Your task to perform on an android device: Open the calendar app, open the side menu, and click the "Day" option Image 0: 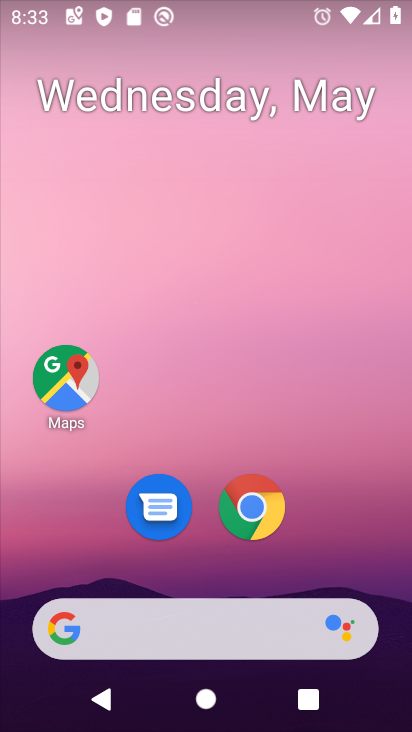
Step 0: drag from (331, 528) to (308, 242)
Your task to perform on an android device: Open the calendar app, open the side menu, and click the "Day" option Image 1: 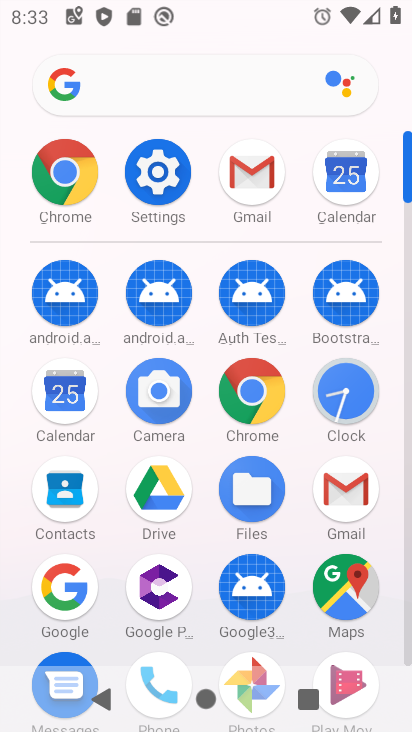
Step 1: click (57, 379)
Your task to perform on an android device: Open the calendar app, open the side menu, and click the "Day" option Image 2: 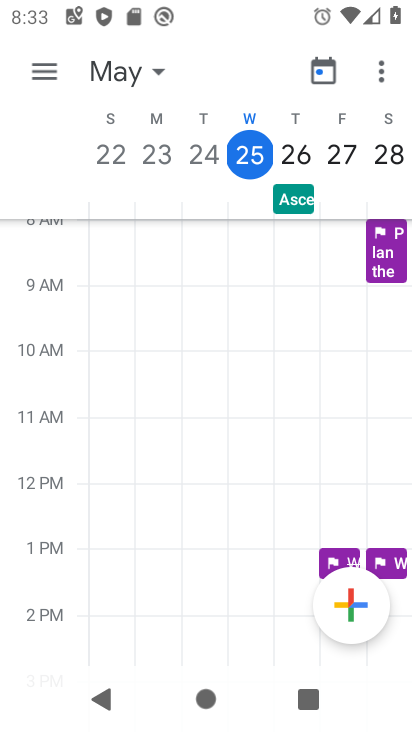
Step 2: click (51, 67)
Your task to perform on an android device: Open the calendar app, open the side menu, and click the "Day" option Image 3: 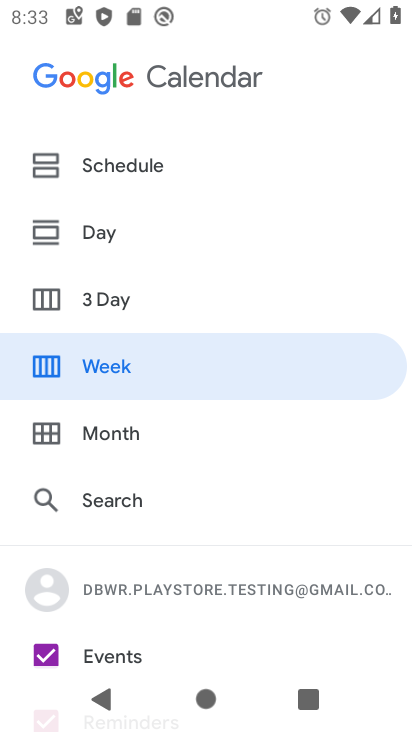
Step 3: click (112, 238)
Your task to perform on an android device: Open the calendar app, open the side menu, and click the "Day" option Image 4: 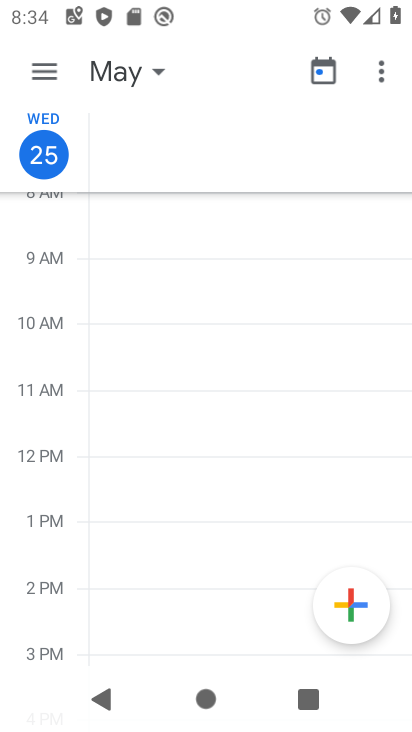
Step 4: task complete